Your task to perform on an android device: snooze an email in the gmail app Image 0: 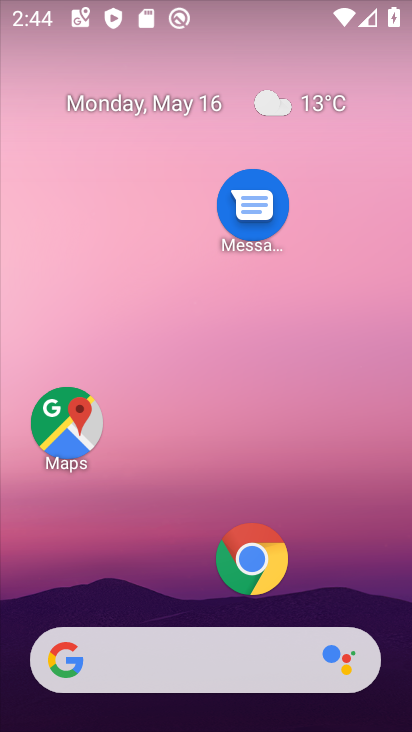
Step 0: drag from (148, 601) to (174, 162)
Your task to perform on an android device: snooze an email in the gmail app Image 1: 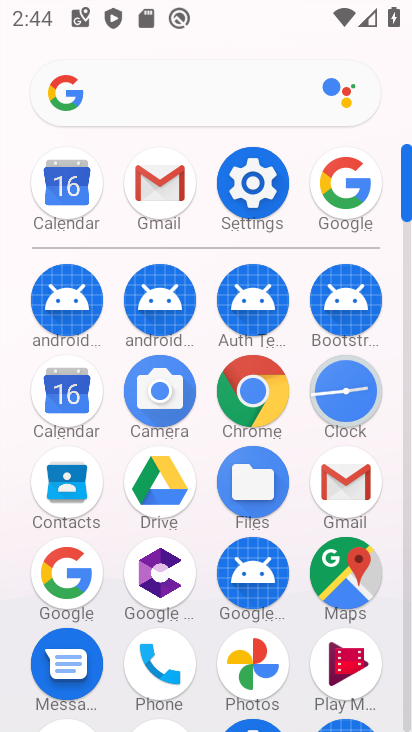
Step 1: click (152, 189)
Your task to perform on an android device: snooze an email in the gmail app Image 2: 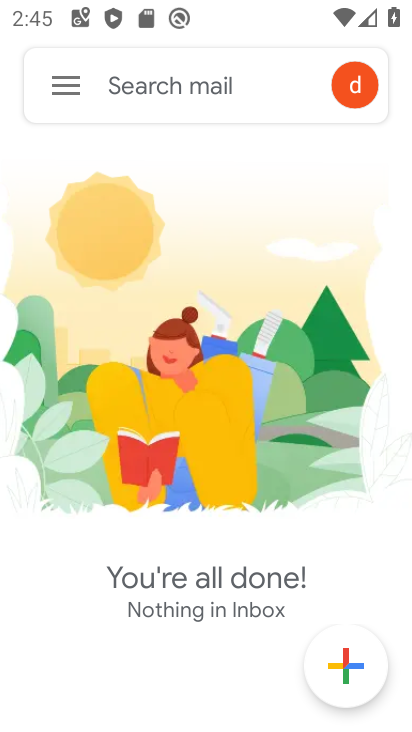
Step 2: click (48, 85)
Your task to perform on an android device: snooze an email in the gmail app Image 3: 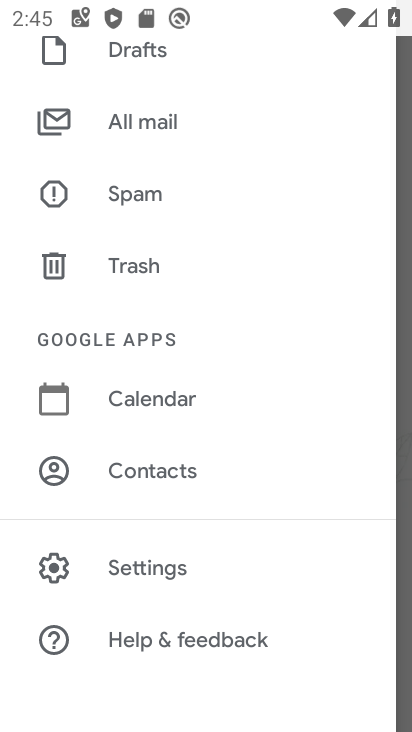
Step 3: drag from (199, 205) to (201, 503)
Your task to perform on an android device: snooze an email in the gmail app Image 4: 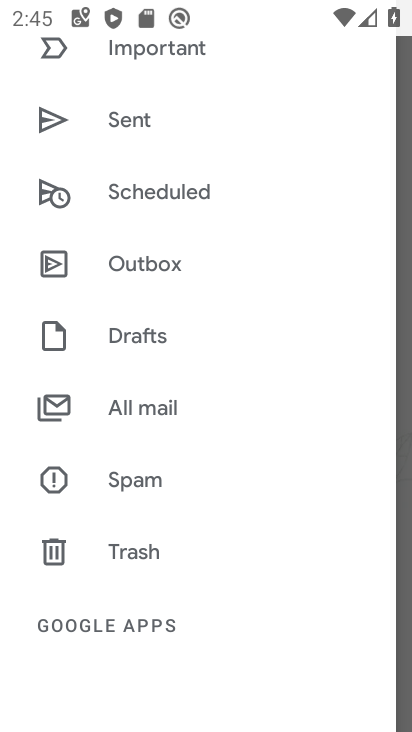
Step 4: click (148, 404)
Your task to perform on an android device: snooze an email in the gmail app Image 5: 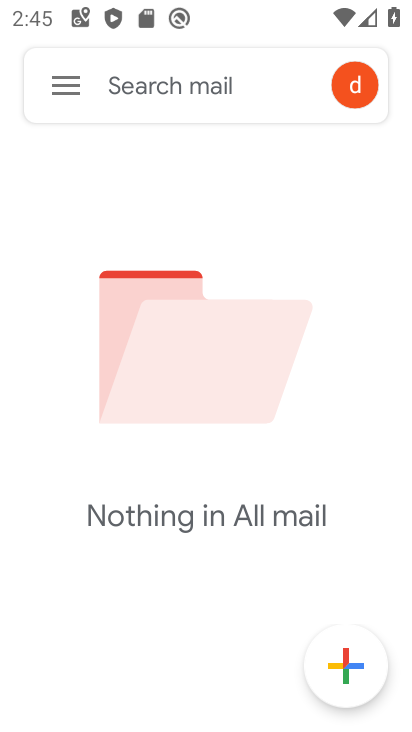
Step 5: task complete